Your task to perform on an android device: Search for the best books of all time on Goodreads Image 0: 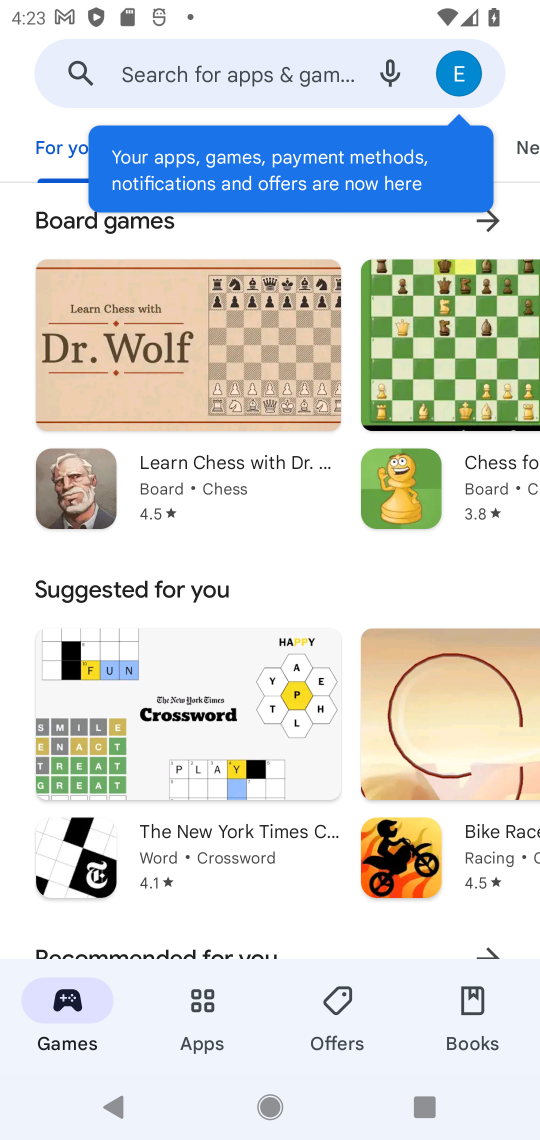
Step 0: press home button
Your task to perform on an android device: Search for the best books of all time on Goodreads Image 1: 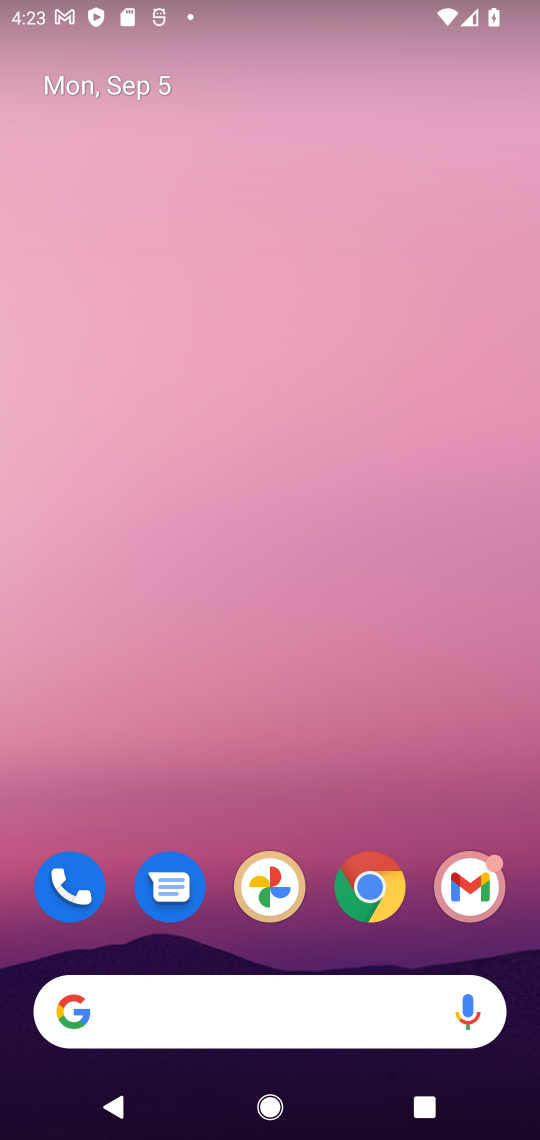
Step 1: drag from (314, 537) to (327, 4)
Your task to perform on an android device: Search for the best books of all time on Goodreads Image 2: 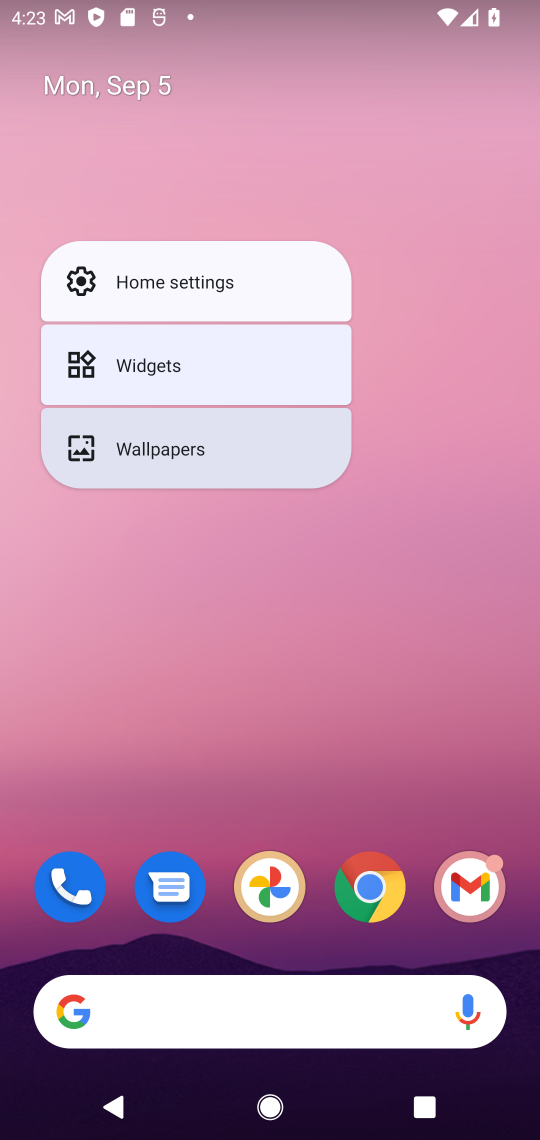
Step 2: click (419, 673)
Your task to perform on an android device: Search for the best books of all time on Goodreads Image 3: 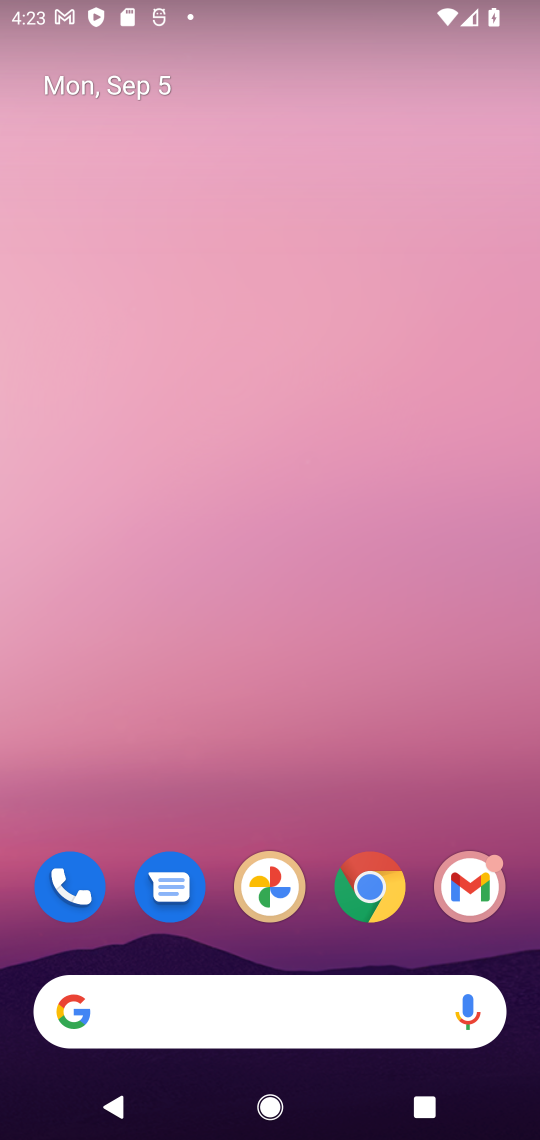
Step 3: drag from (325, 799) to (276, 176)
Your task to perform on an android device: Search for the best books of all time on Goodreads Image 4: 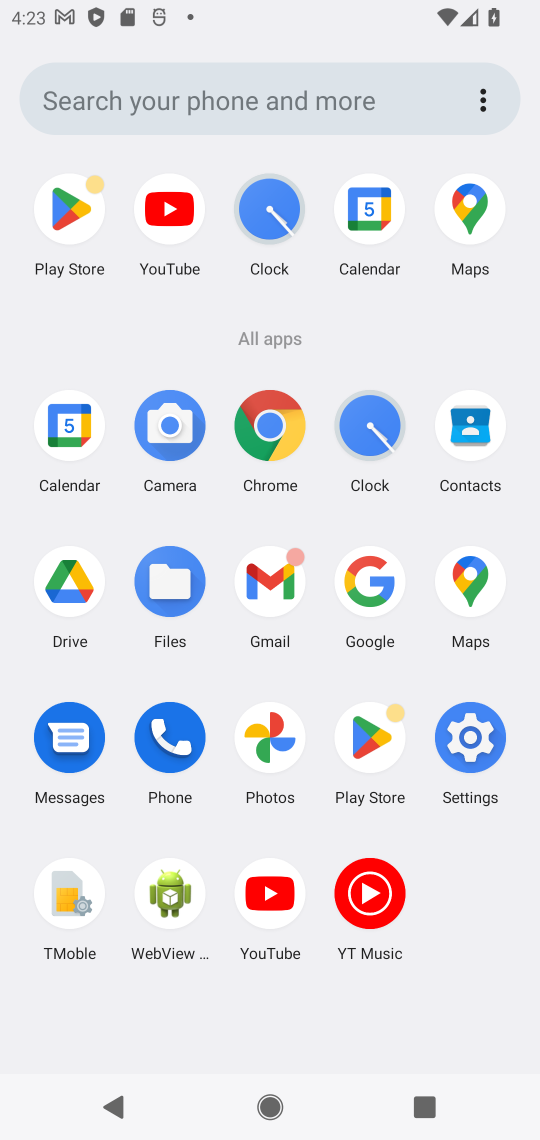
Step 4: click (271, 429)
Your task to perform on an android device: Search for the best books of all time on Goodreads Image 5: 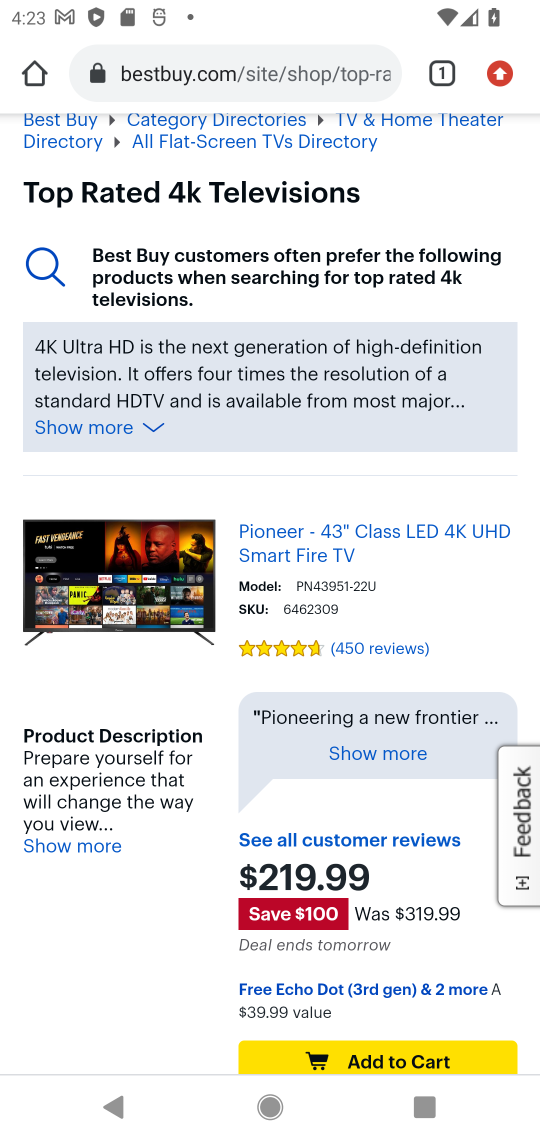
Step 5: click (209, 72)
Your task to perform on an android device: Search for the best books of all time on Goodreads Image 6: 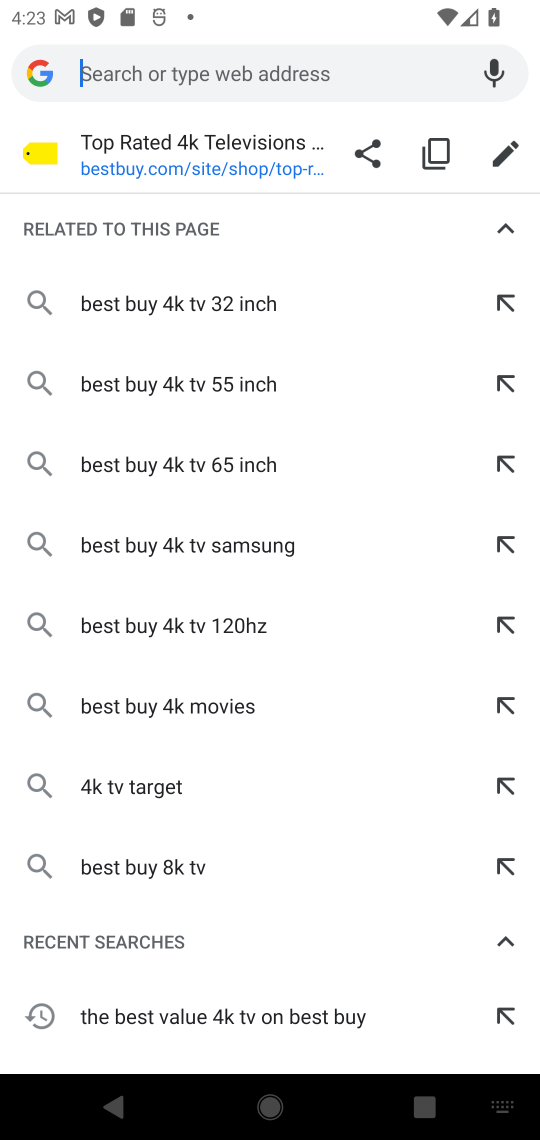
Step 6: type "best books of all time on Goodreads"
Your task to perform on an android device: Search for the best books of all time on Goodreads Image 7: 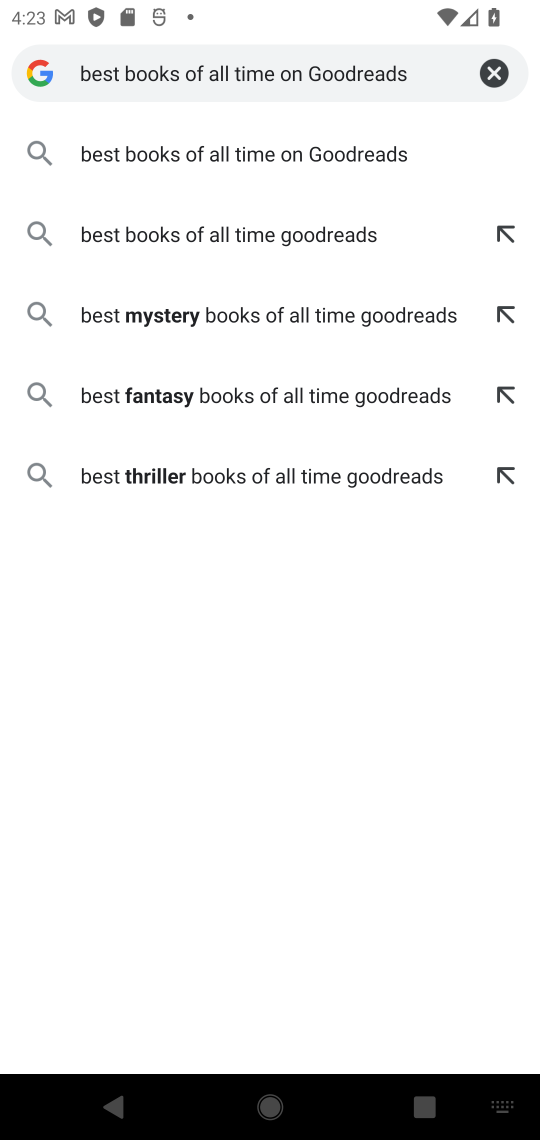
Step 7: press enter
Your task to perform on an android device: Search for the best books of all time on Goodreads Image 8: 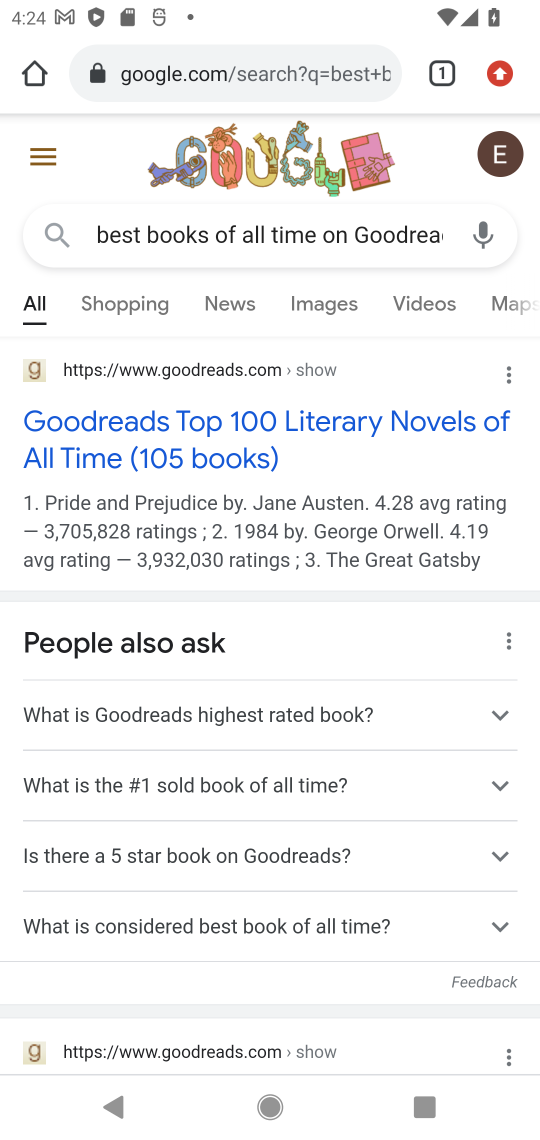
Step 8: click (238, 442)
Your task to perform on an android device: Search for the best books of all time on Goodreads Image 9: 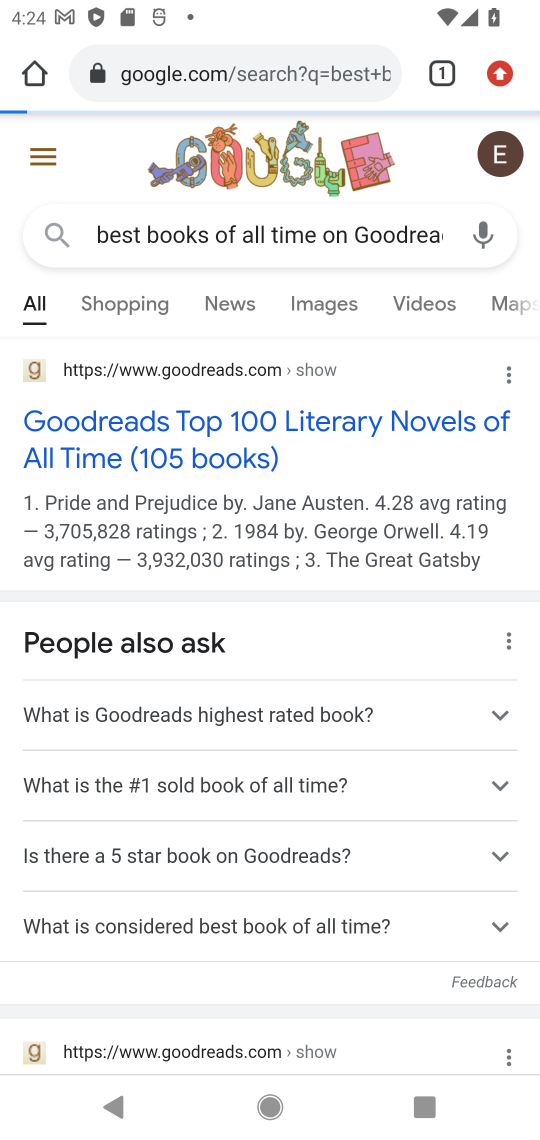
Step 9: click (253, 440)
Your task to perform on an android device: Search for the best books of all time on Goodreads Image 10: 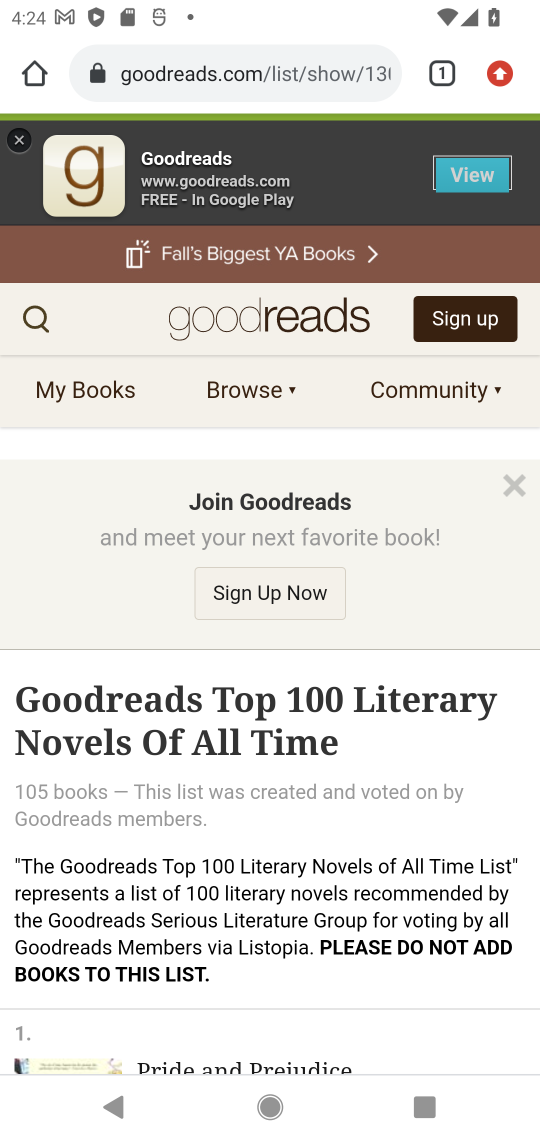
Step 10: task complete